Your task to perform on an android device: turn on airplane mode Image 0: 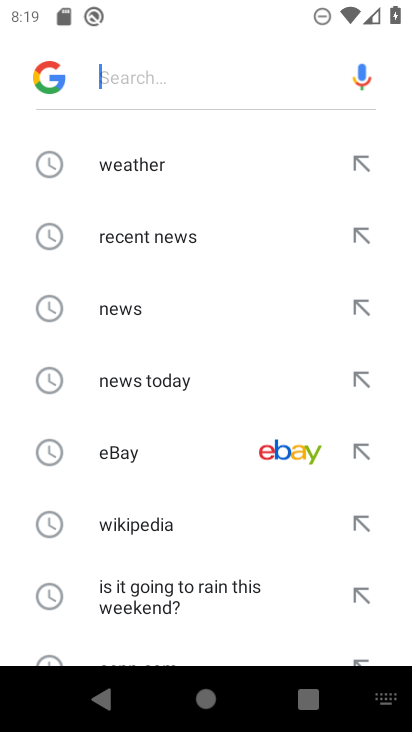
Step 0: press home button
Your task to perform on an android device: turn on airplane mode Image 1: 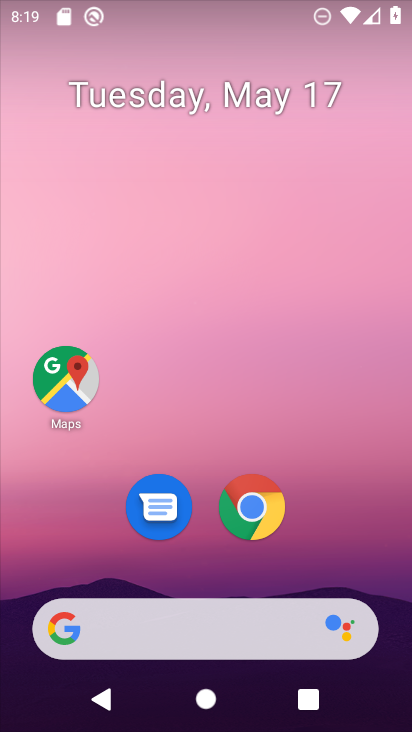
Step 1: drag from (212, 0) to (255, 681)
Your task to perform on an android device: turn on airplane mode Image 2: 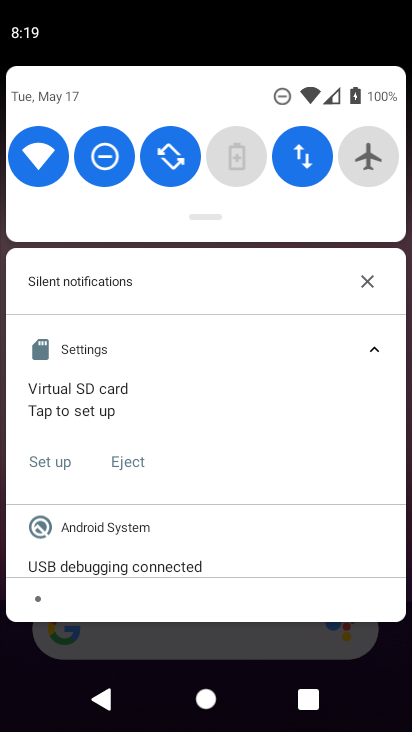
Step 2: click (372, 162)
Your task to perform on an android device: turn on airplane mode Image 3: 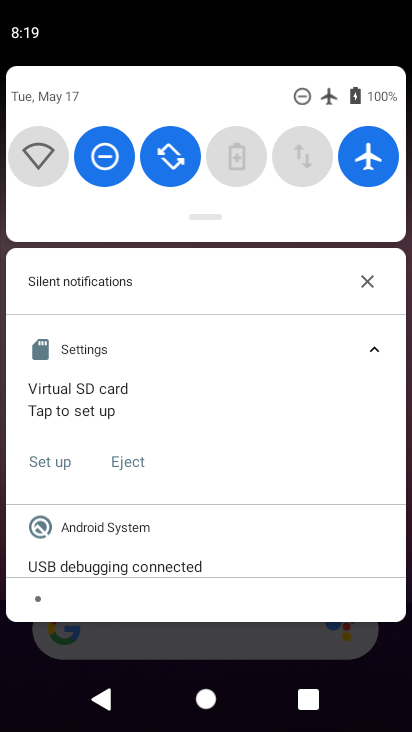
Step 3: task complete